Your task to perform on an android device: install app "Google Translate" Image 0: 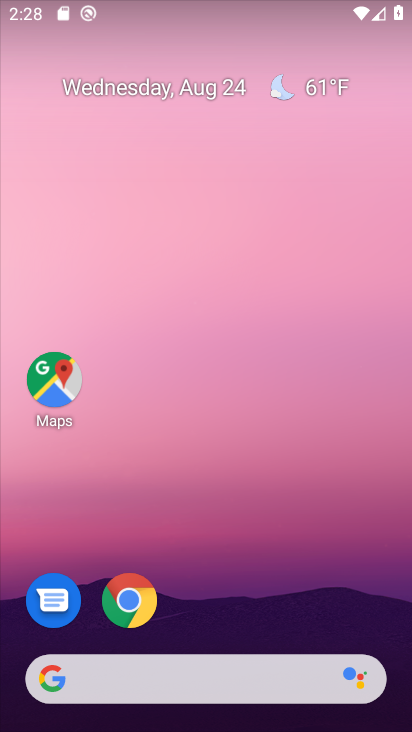
Step 0: drag from (204, 498) to (299, 13)
Your task to perform on an android device: install app "Google Translate" Image 1: 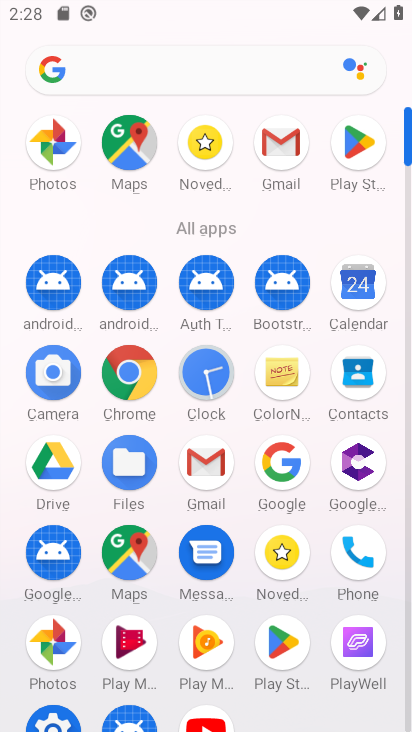
Step 1: click (368, 154)
Your task to perform on an android device: install app "Google Translate" Image 2: 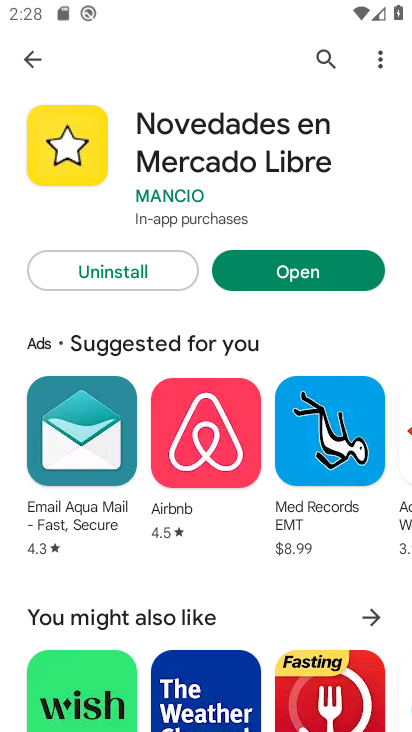
Step 2: click (311, 40)
Your task to perform on an android device: install app "Google Translate" Image 3: 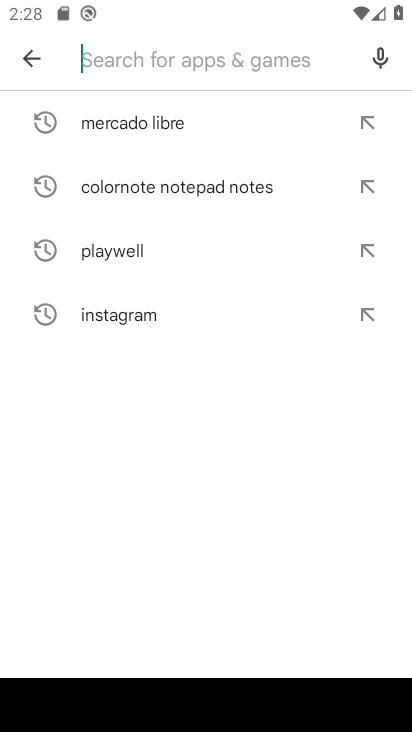
Step 3: click (94, 56)
Your task to perform on an android device: install app "Google Translate" Image 4: 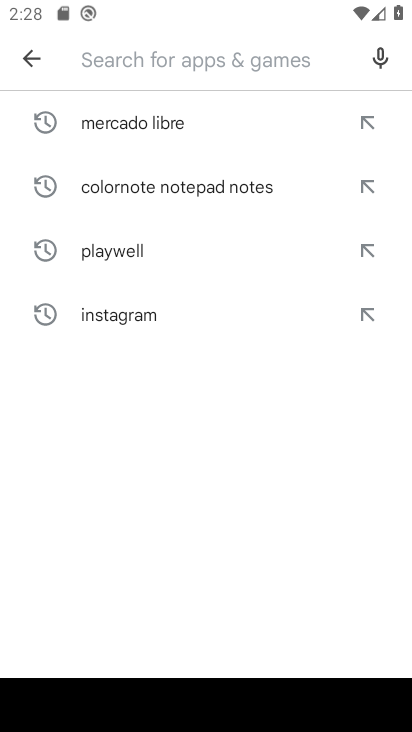
Step 4: type "Google Translate"
Your task to perform on an android device: install app "Google Translate" Image 5: 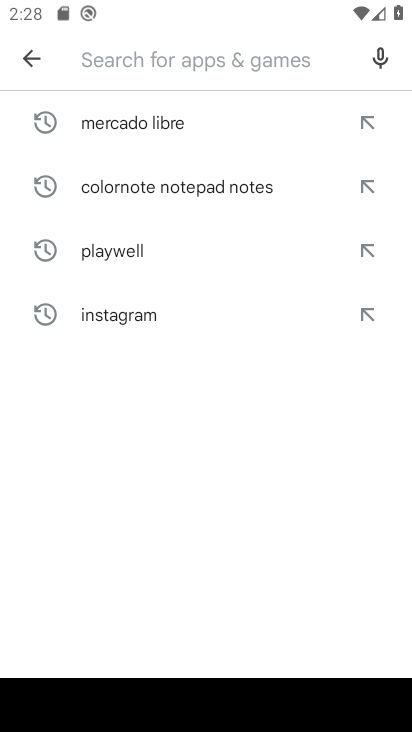
Step 5: click (252, 539)
Your task to perform on an android device: install app "Google Translate" Image 6: 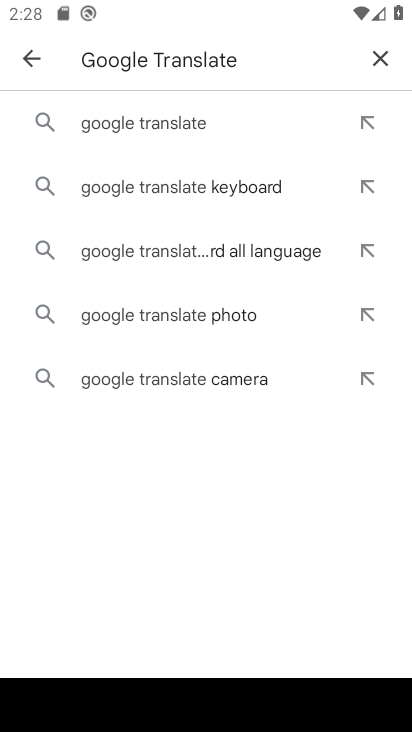
Step 6: click (163, 118)
Your task to perform on an android device: install app "Google Translate" Image 7: 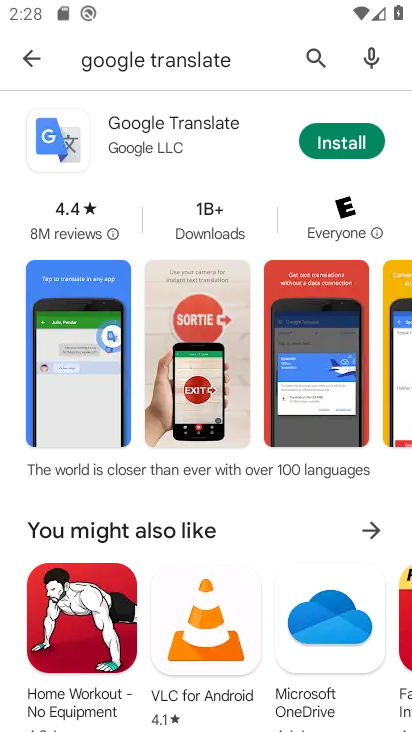
Step 7: click (332, 140)
Your task to perform on an android device: install app "Google Translate" Image 8: 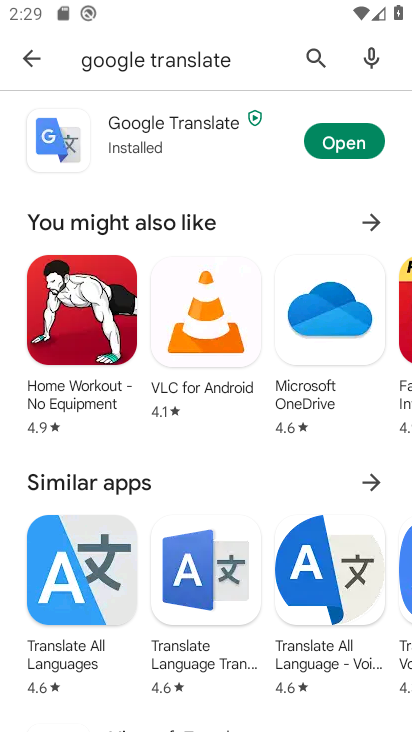
Step 8: click (345, 137)
Your task to perform on an android device: install app "Google Translate" Image 9: 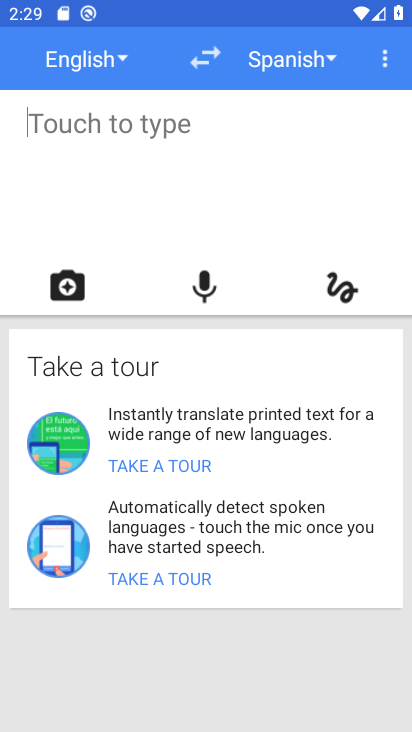
Step 9: task complete